Your task to perform on an android device: turn off location history Image 0: 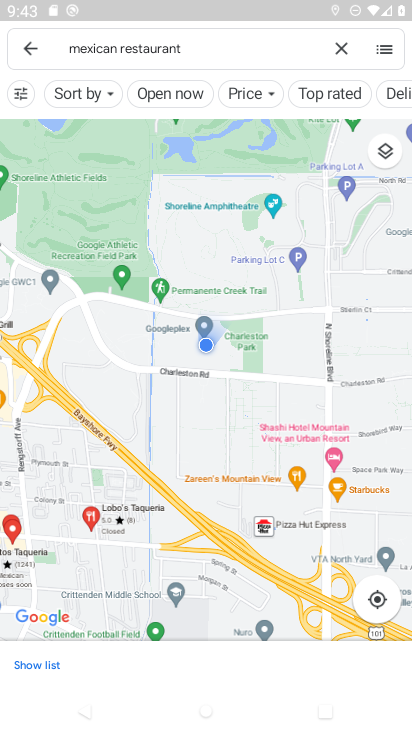
Step 0: click (27, 53)
Your task to perform on an android device: turn off location history Image 1: 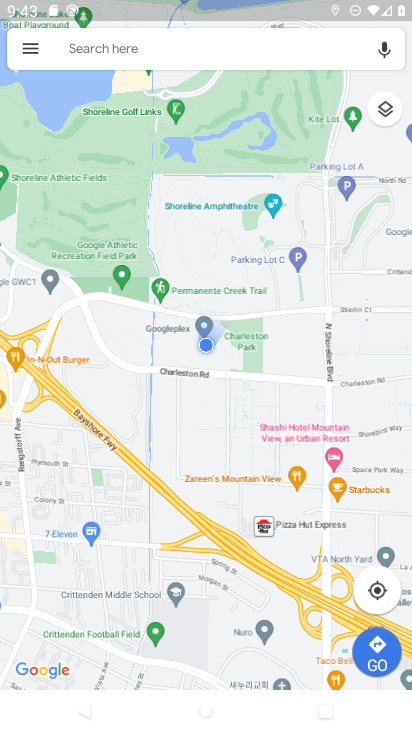
Step 1: press back button
Your task to perform on an android device: turn off location history Image 2: 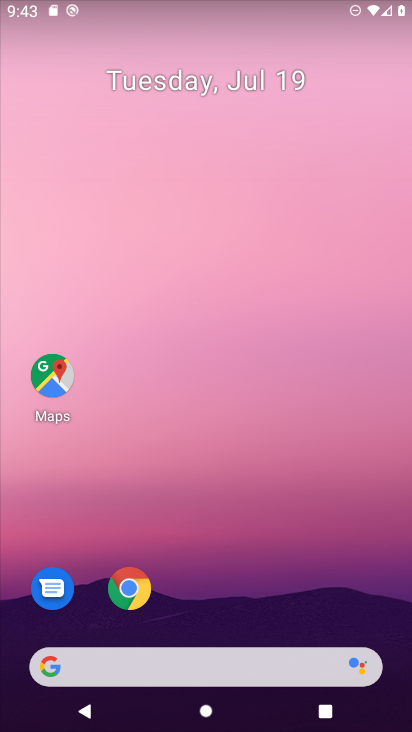
Step 2: drag from (252, 614) to (170, 179)
Your task to perform on an android device: turn off location history Image 3: 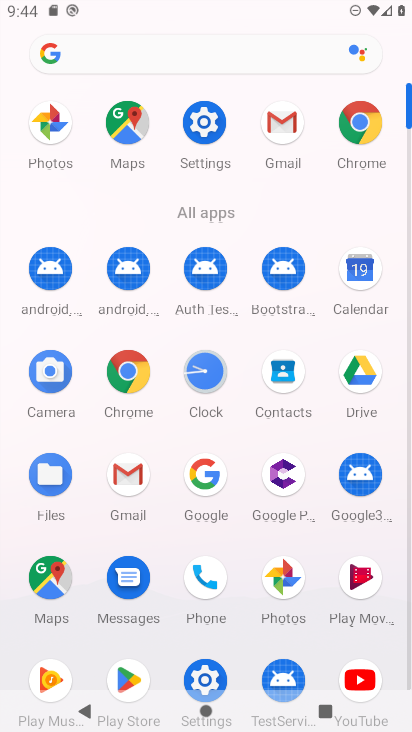
Step 3: click (185, 129)
Your task to perform on an android device: turn off location history Image 4: 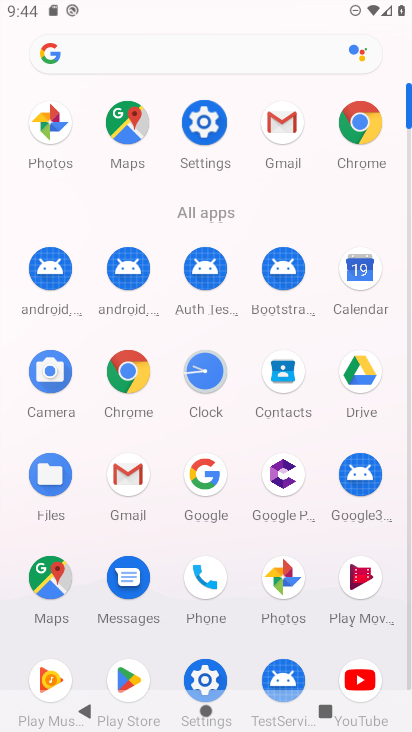
Step 4: click (214, 125)
Your task to perform on an android device: turn off location history Image 5: 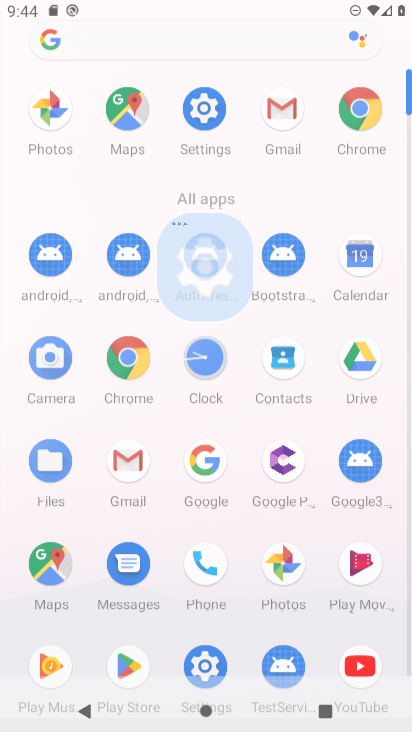
Step 5: click (214, 125)
Your task to perform on an android device: turn off location history Image 6: 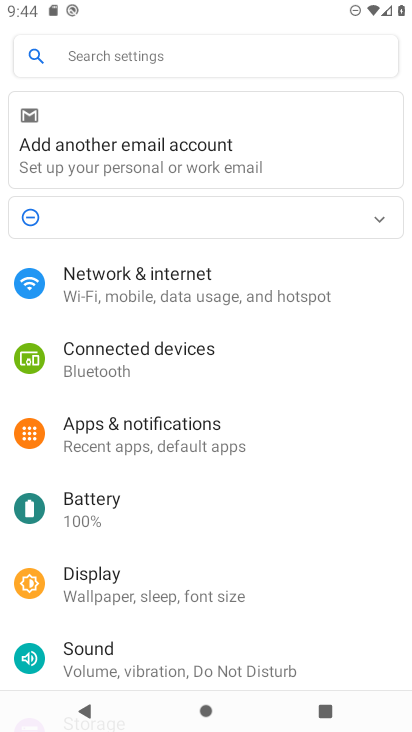
Step 6: click (231, 384)
Your task to perform on an android device: turn off location history Image 7: 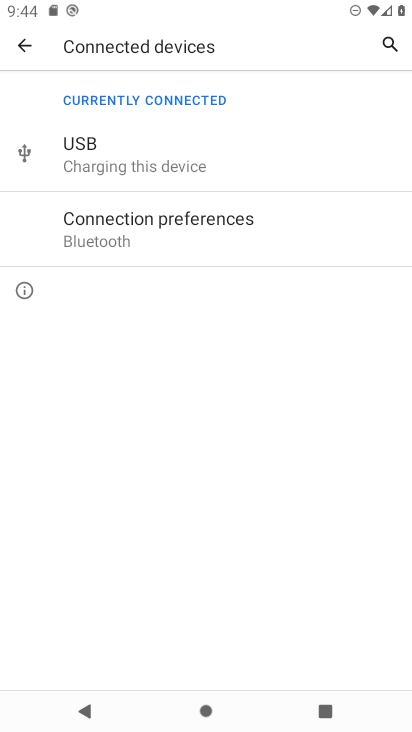
Step 7: click (29, 49)
Your task to perform on an android device: turn off location history Image 8: 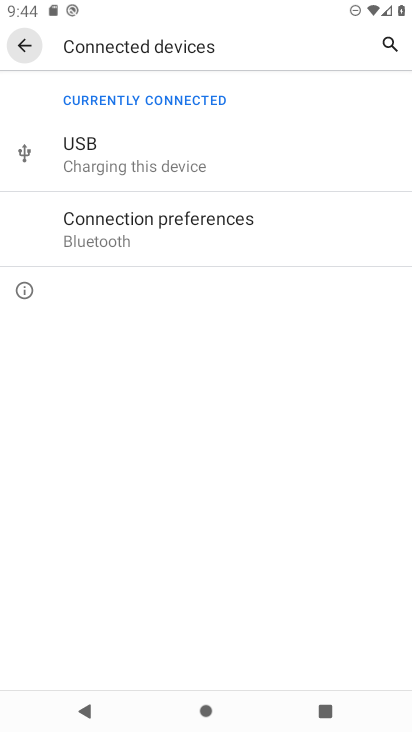
Step 8: click (29, 48)
Your task to perform on an android device: turn off location history Image 9: 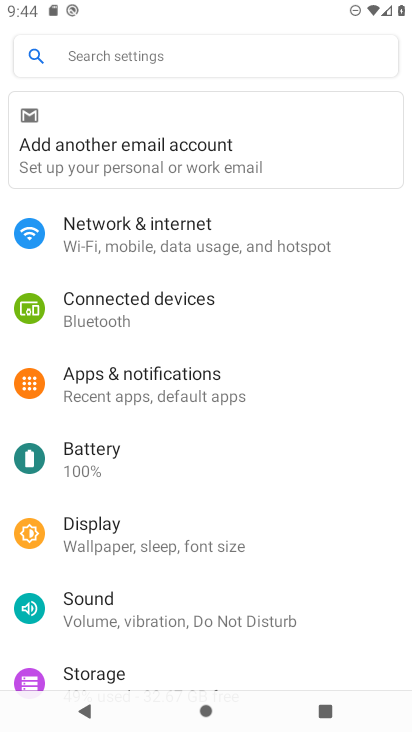
Step 9: drag from (110, 539) to (122, 259)
Your task to perform on an android device: turn off location history Image 10: 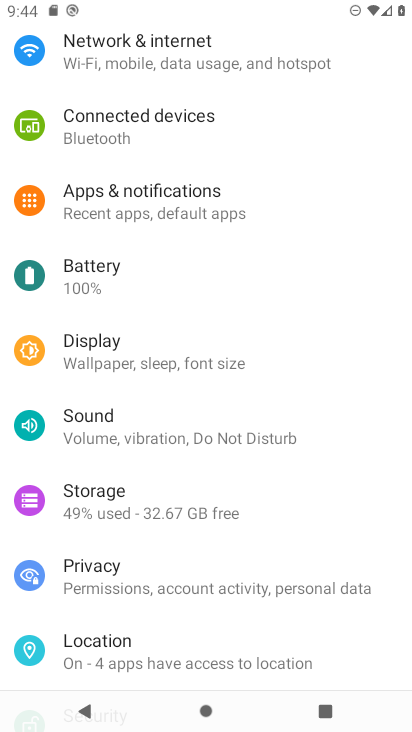
Step 10: click (100, 631)
Your task to perform on an android device: turn off location history Image 11: 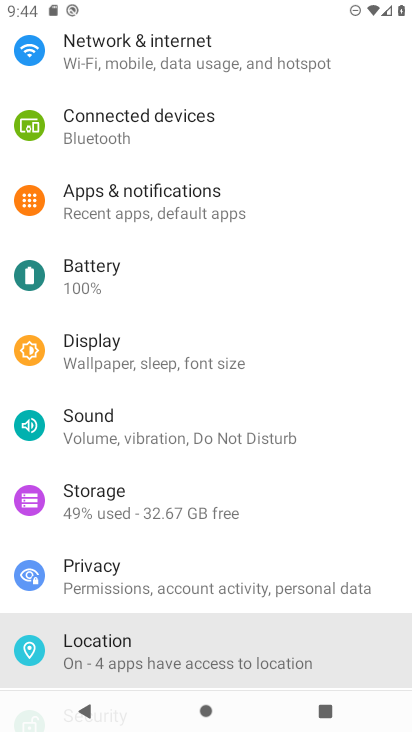
Step 11: click (104, 635)
Your task to perform on an android device: turn off location history Image 12: 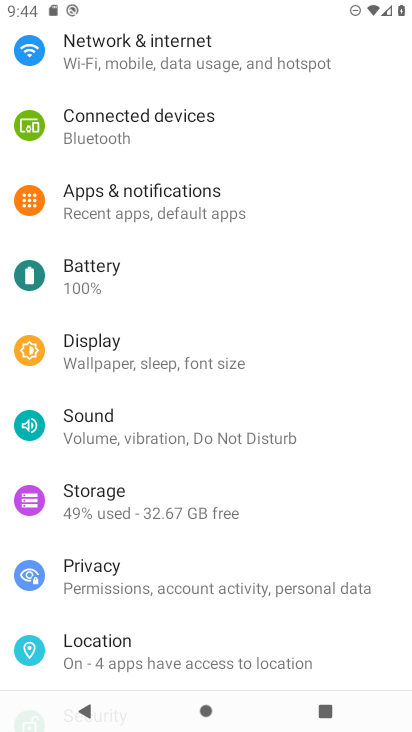
Step 12: click (104, 636)
Your task to perform on an android device: turn off location history Image 13: 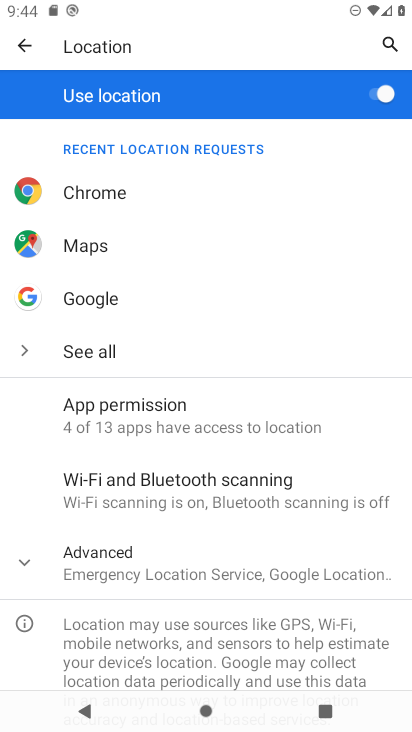
Step 13: click (104, 574)
Your task to perform on an android device: turn off location history Image 14: 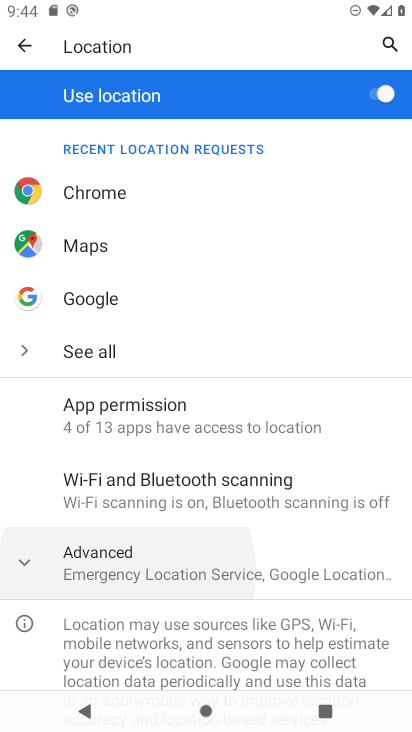
Step 14: click (103, 573)
Your task to perform on an android device: turn off location history Image 15: 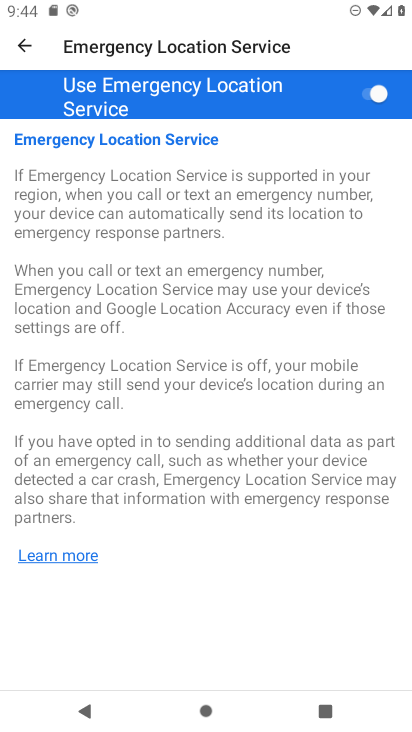
Step 15: click (19, 43)
Your task to perform on an android device: turn off location history Image 16: 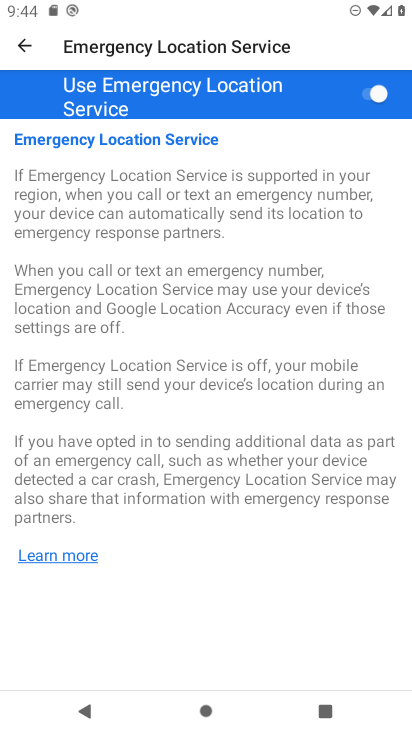
Step 16: click (32, 44)
Your task to perform on an android device: turn off location history Image 17: 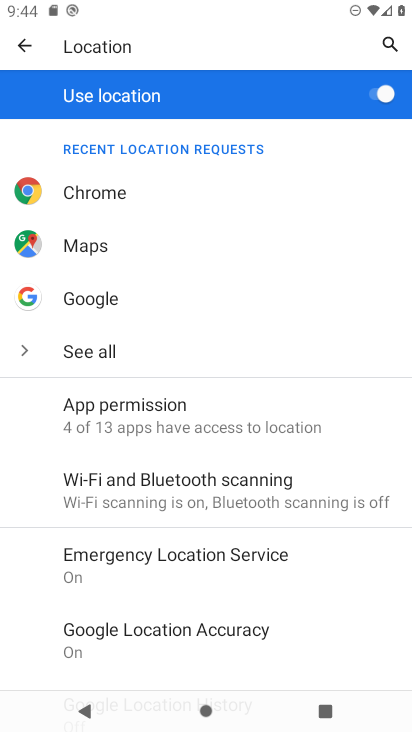
Step 17: drag from (189, 589) to (228, 468)
Your task to perform on an android device: turn off location history Image 18: 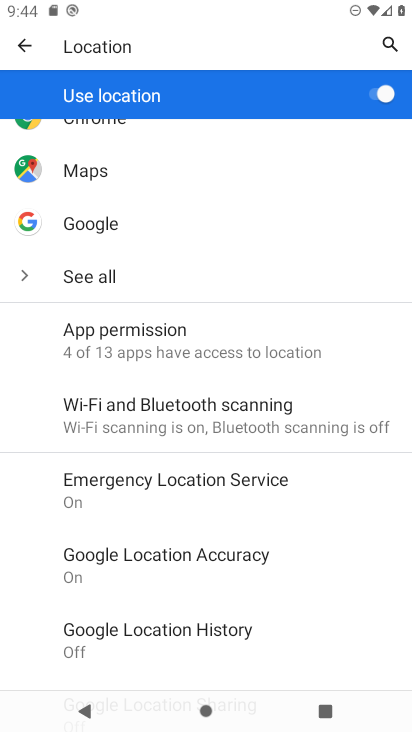
Step 18: click (189, 631)
Your task to perform on an android device: turn off location history Image 19: 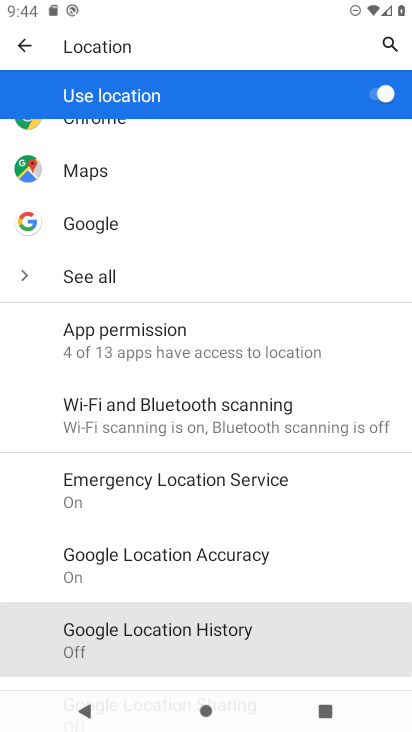
Step 19: click (195, 629)
Your task to perform on an android device: turn off location history Image 20: 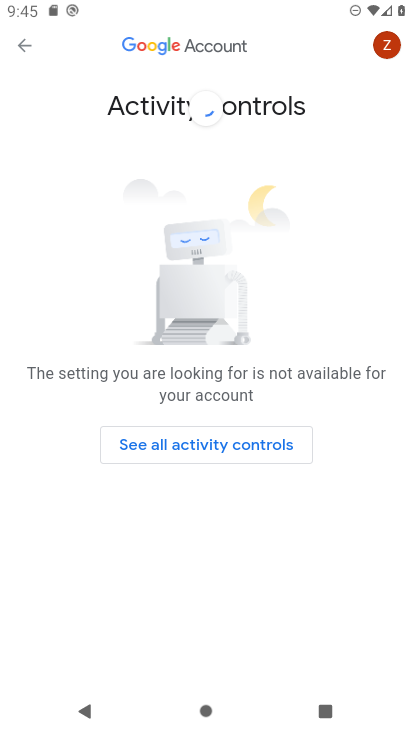
Step 20: click (238, 441)
Your task to perform on an android device: turn off location history Image 21: 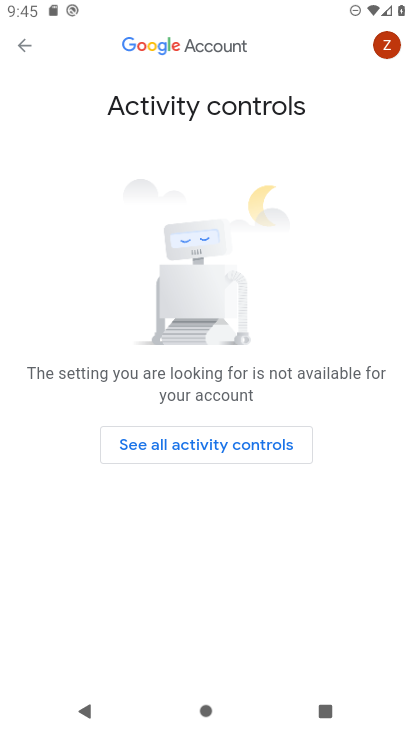
Step 21: click (236, 435)
Your task to perform on an android device: turn off location history Image 22: 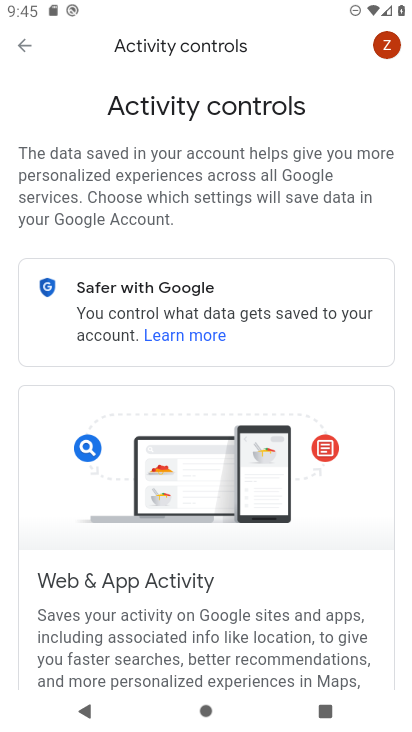
Step 22: drag from (215, 575) to (187, 321)
Your task to perform on an android device: turn off location history Image 23: 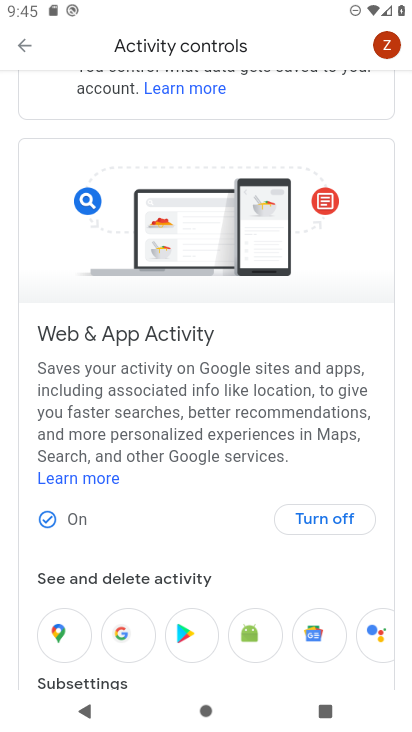
Step 23: click (52, 514)
Your task to perform on an android device: turn off location history Image 24: 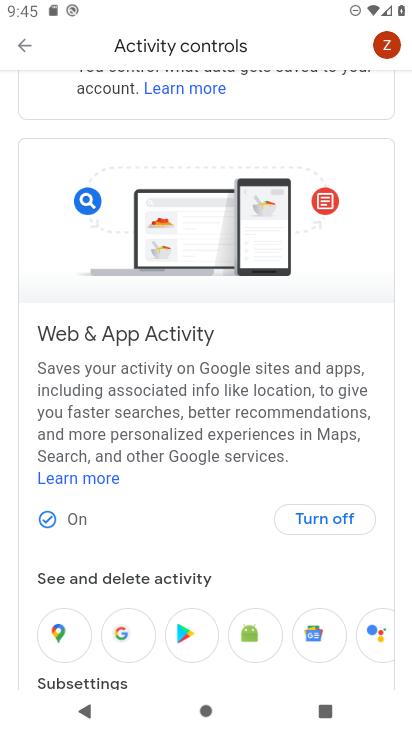
Step 24: click (47, 515)
Your task to perform on an android device: turn off location history Image 25: 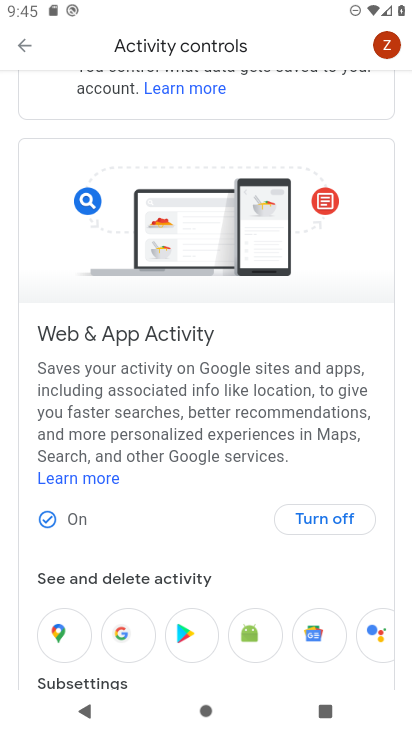
Step 25: click (47, 515)
Your task to perform on an android device: turn off location history Image 26: 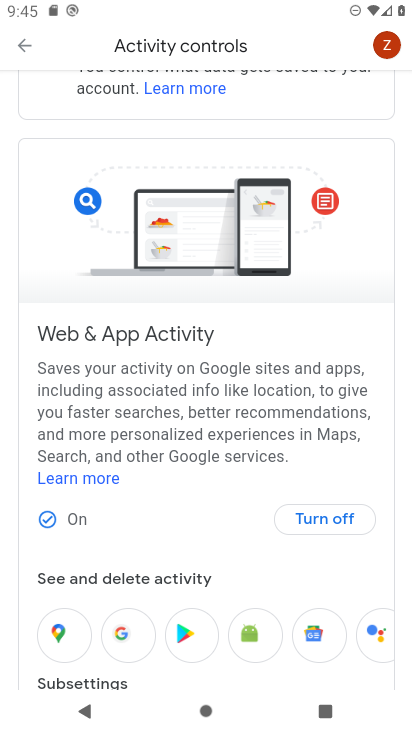
Step 26: click (47, 518)
Your task to perform on an android device: turn off location history Image 27: 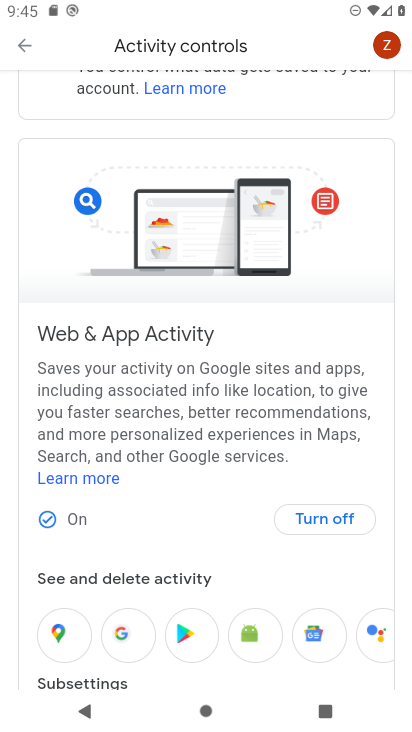
Step 27: click (321, 509)
Your task to perform on an android device: turn off location history Image 28: 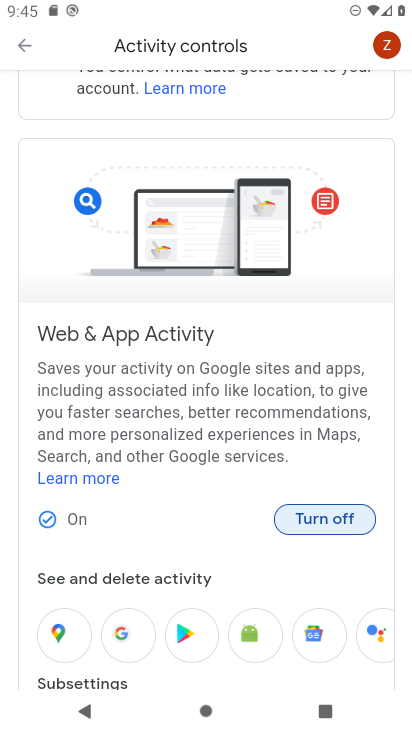
Step 28: click (332, 520)
Your task to perform on an android device: turn off location history Image 29: 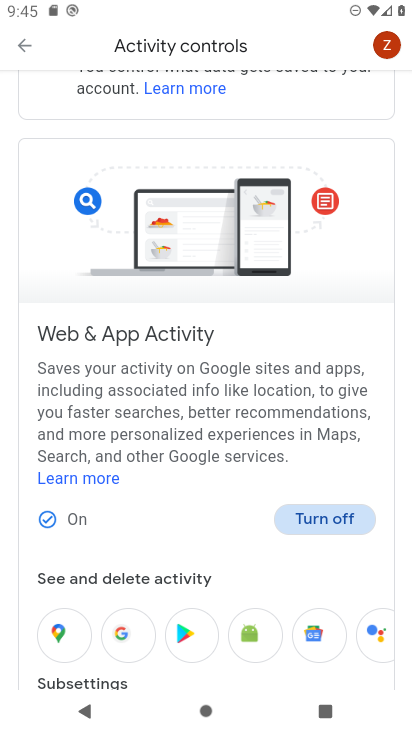
Step 29: click (331, 521)
Your task to perform on an android device: turn off location history Image 30: 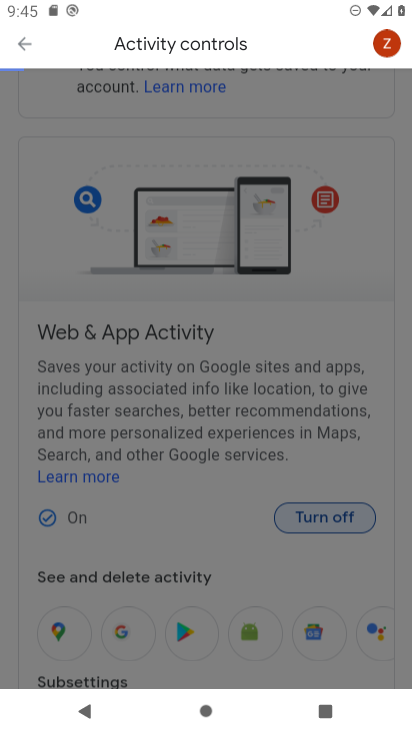
Step 30: click (334, 524)
Your task to perform on an android device: turn off location history Image 31: 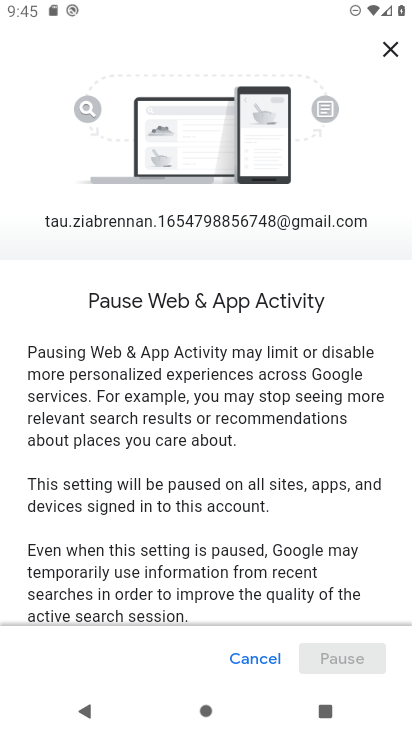
Step 31: drag from (242, 574) to (208, 135)
Your task to perform on an android device: turn off location history Image 32: 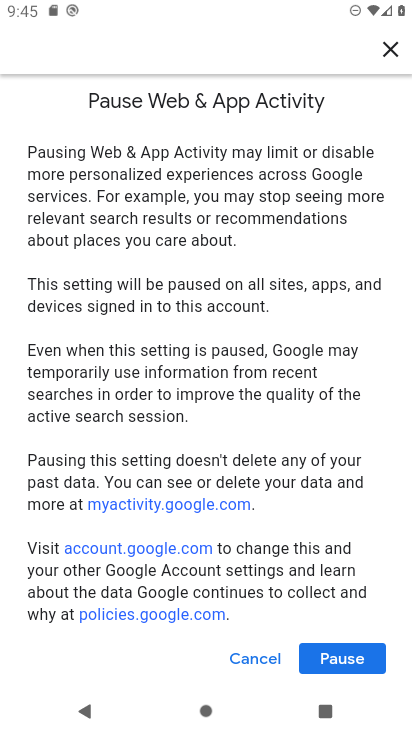
Step 32: click (244, 657)
Your task to perform on an android device: turn off location history Image 33: 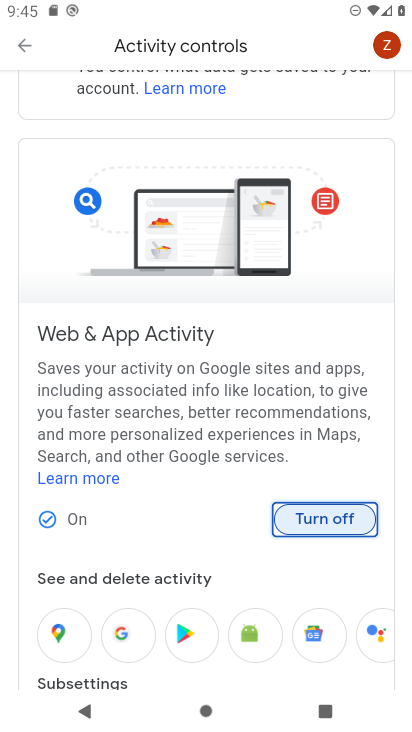
Step 33: drag from (293, 603) to (283, 285)
Your task to perform on an android device: turn off location history Image 34: 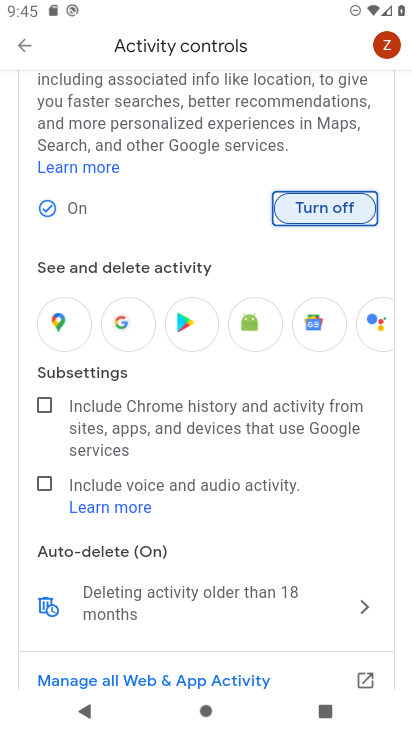
Step 34: drag from (228, 591) to (305, 272)
Your task to perform on an android device: turn off location history Image 35: 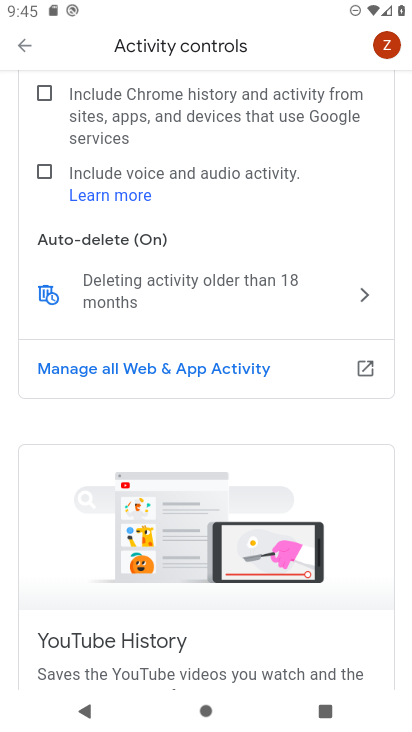
Step 35: drag from (274, 601) to (339, 285)
Your task to perform on an android device: turn off location history Image 36: 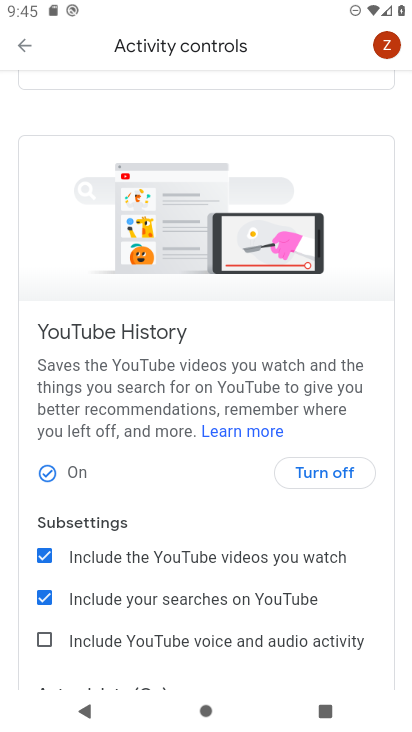
Step 36: click (336, 475)
Your task to perform on an android device: turn off location history Image 37: 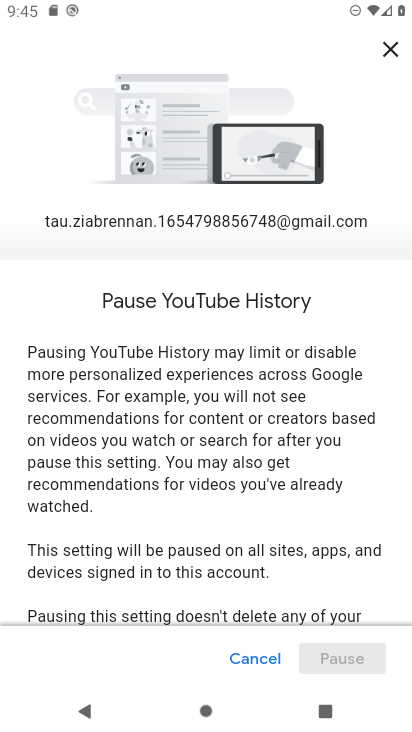
Step 37: task complete